Your task to perform on an android device: Open the stopwatch Image 0: 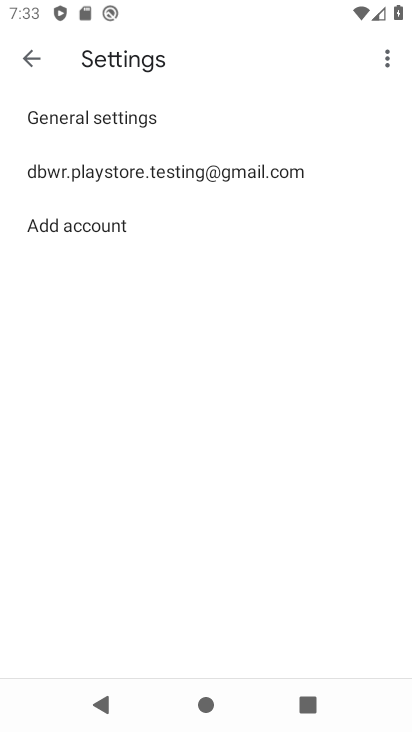
Step 0: press home button
Your task to perform on an android device: Open the stopwatch Image 1: 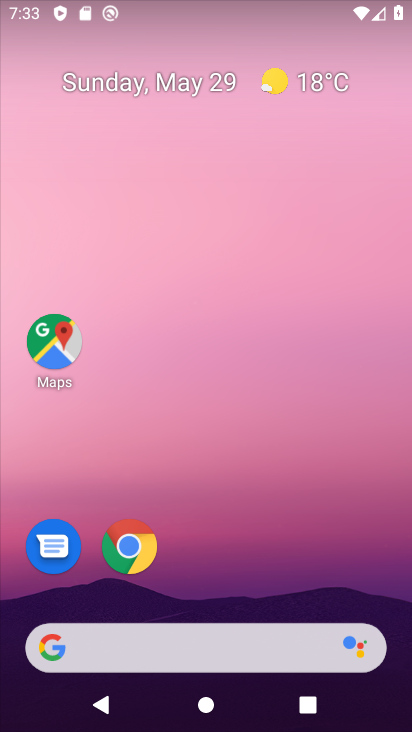
Step 1: drag from (212, 489) to (314, 134)
Your task to perform on an android device: Open the stopwatch Image 2: 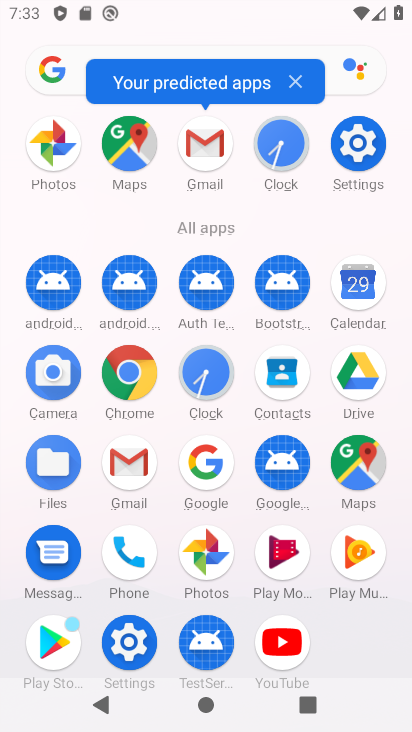
Step 2: click (194, 378)
Your task to perform on an android device: Open the stopwatch Image 3: 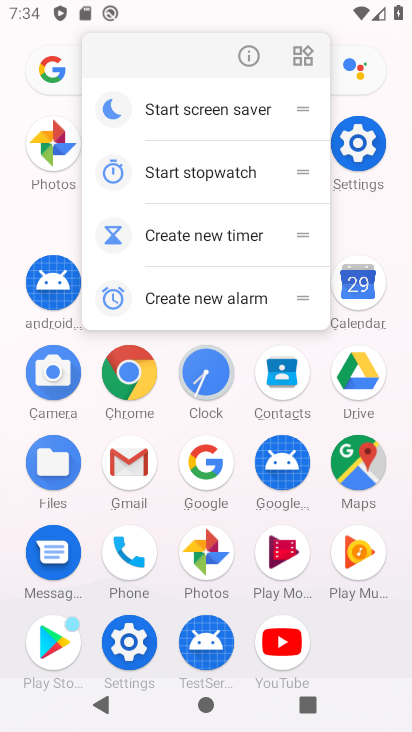
Step 3: click (238, 382)
Your task to perform on an android device: Open the stopwatch Image 4: 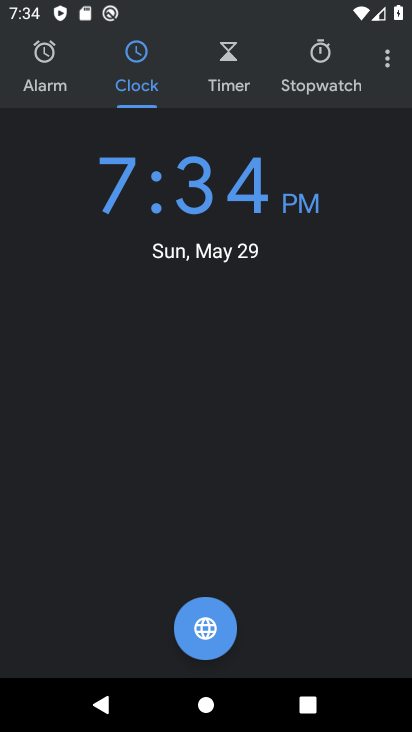
Step 4: click (333, 50)
Your task to perform on an android device: Open the stopwatch Image 5: 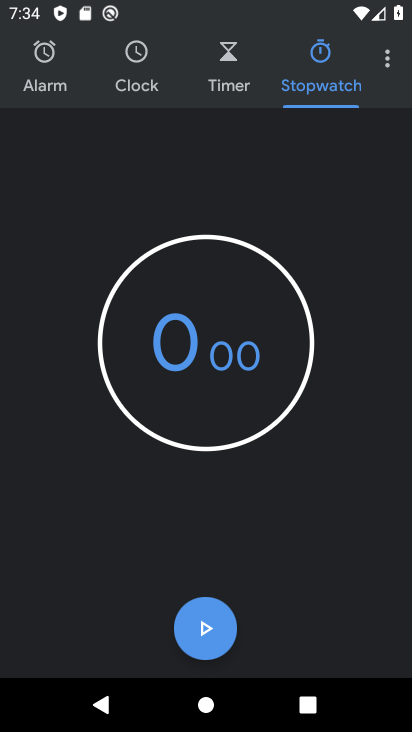
Step 5: task complete